Your task to perform on an android device: Open sound settings Image 0: 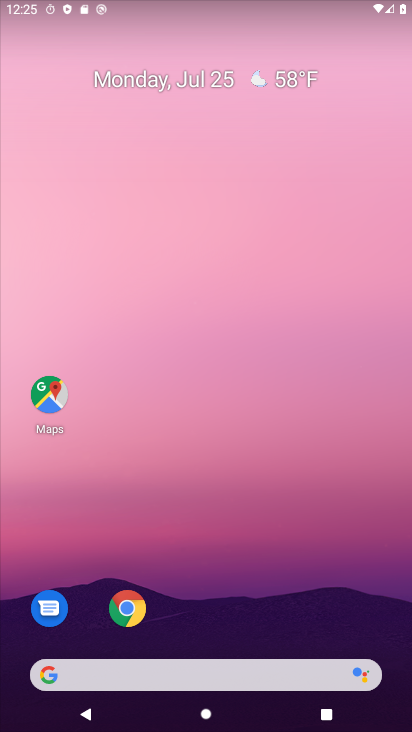
Step 0: drag from (278, 619) to (205, 74)
Your task to perform on an android device: Open sound settings Image 1: 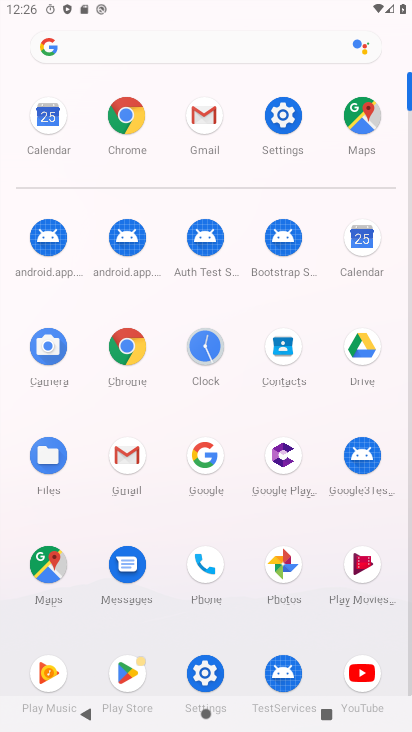
Step 1: click (276, 122)
Your task to perform on an android device: Open sound settings Image 2: 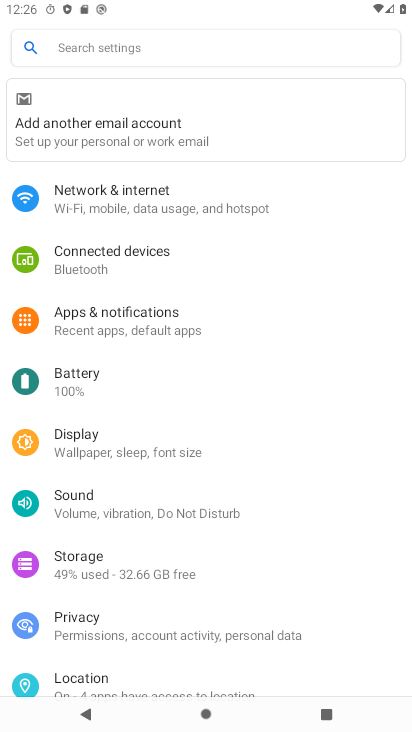
Step 2: click (67, 506)
Your task to perform on an android device: Open sound settings Image 3: 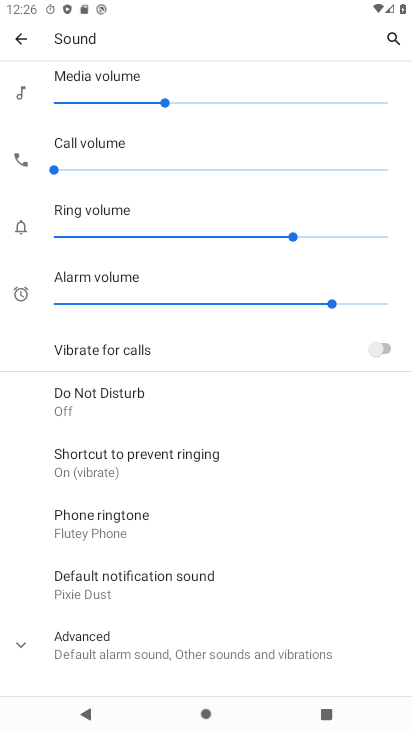
Step 3: task complete